Your task to perform on an android device: find snoozed emails in the gmail app Image 0: 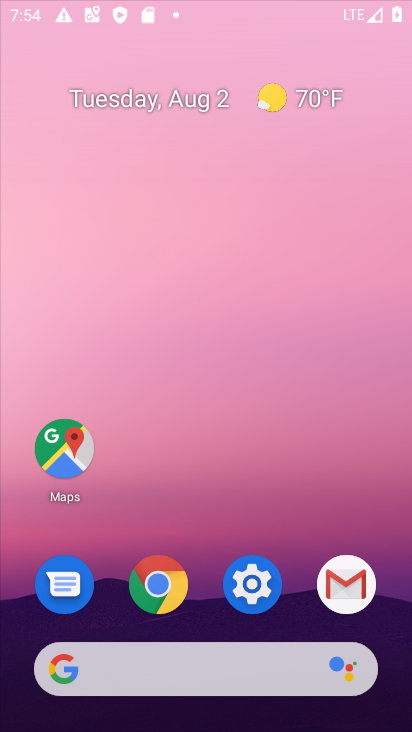
Step 0: press home button
Your task to perform on an android device: find snoozed emails in the gmail app Image 1: 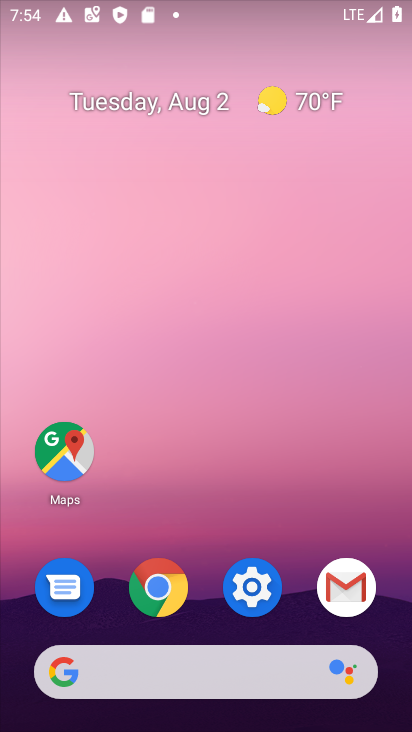
Step 1: press home button
Your task to perform on an android device: find snoozed emails in the gmail app Image 2: 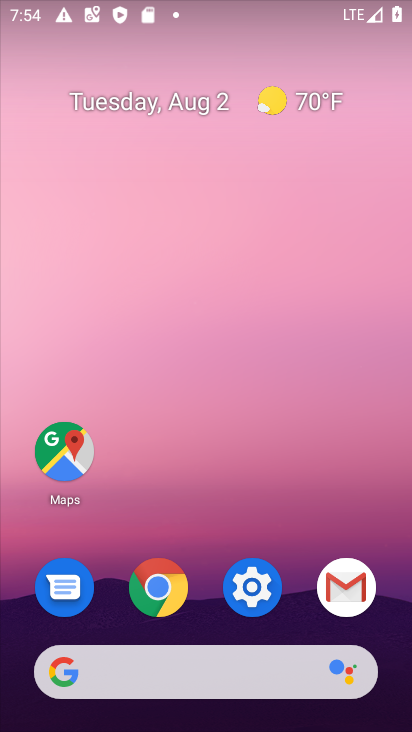
Step 2: click (341, 590)
Your task to perform on an android device: find snoozed emails in the gmail app Image 3: 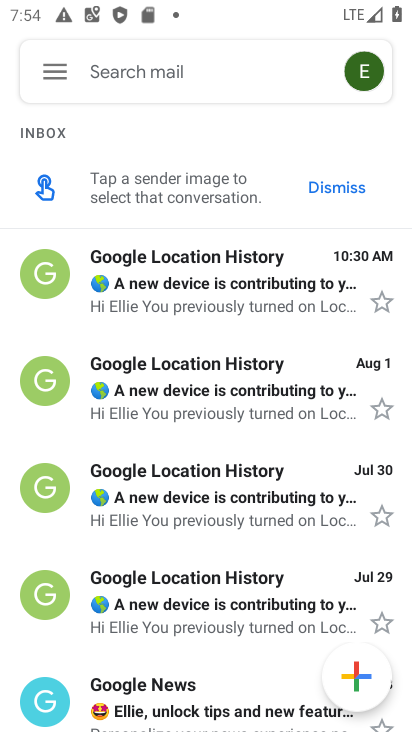
Step 3: click (46, 71)
Your task to perform on an android device: find snoozed emails in the gmail app Image 4: 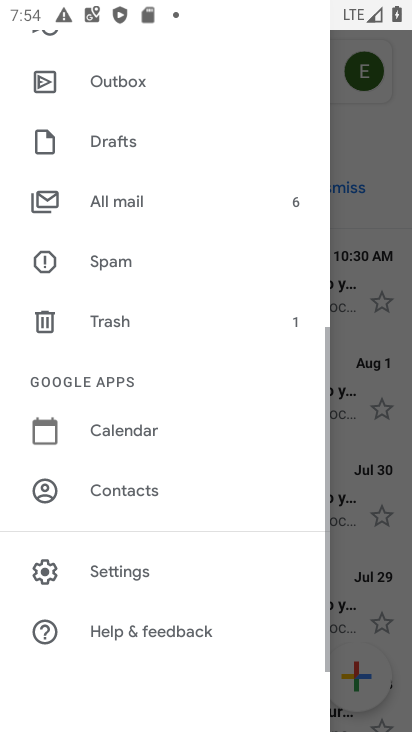
Step 4: drag from (97, 140) to (173, 465)
Your task to perform on an android device: find snoozed emails in the gmail app Image 5: 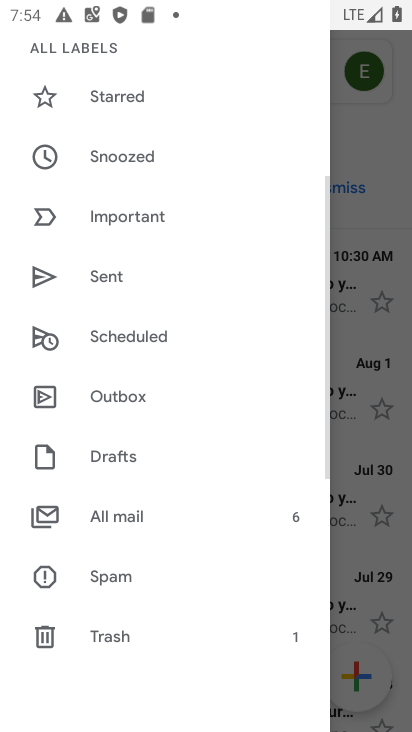
Step 5: click (144, 156)
Your task to perform on an android device: find snoozed emails in the gmail app Image 6: 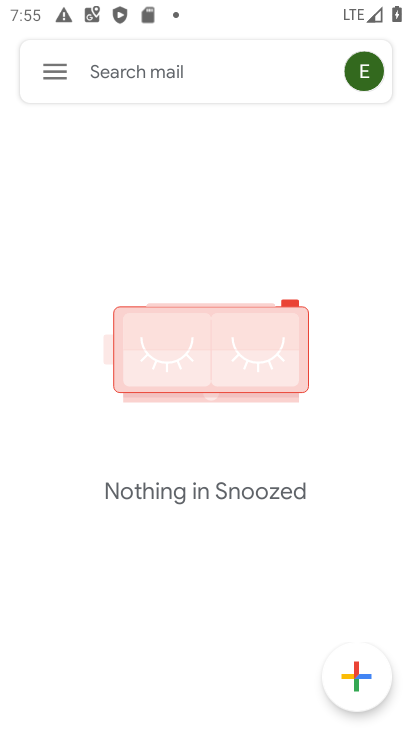
Step 6: task complete